Your task to perform on an android device: manage bookmarks in the chrome app Image 0: 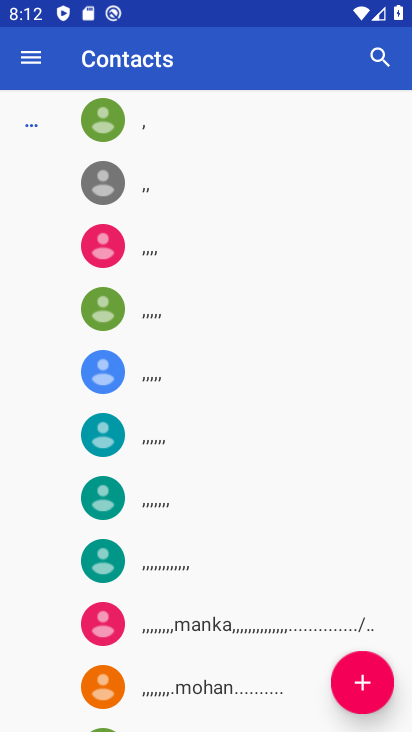
Step 0: press home button
Your task to perform on an android device: manage bookmarks in the chrome app Image 1: 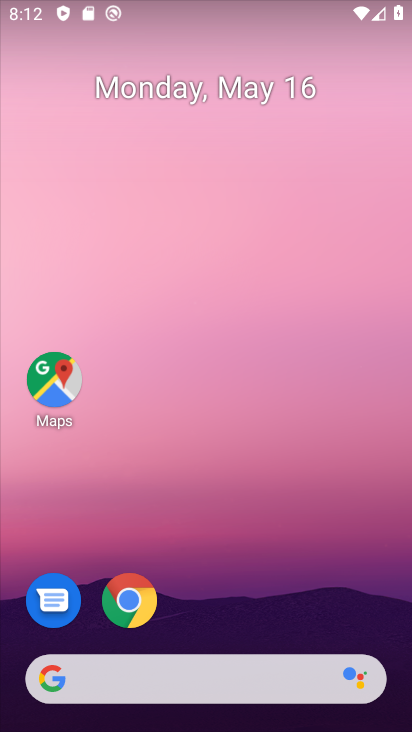
Step 1: click (124, 612)
Your task to perform on an android device: manage bookmarks in the chrome app Image 2: 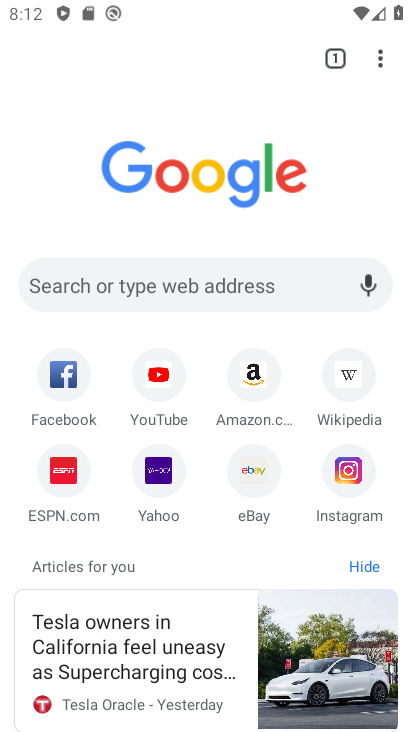
Step 2: drag from (379, 60) to (247, 231)
Your task to perform on an android device: manage bookmarks in the chrome app Image 3: 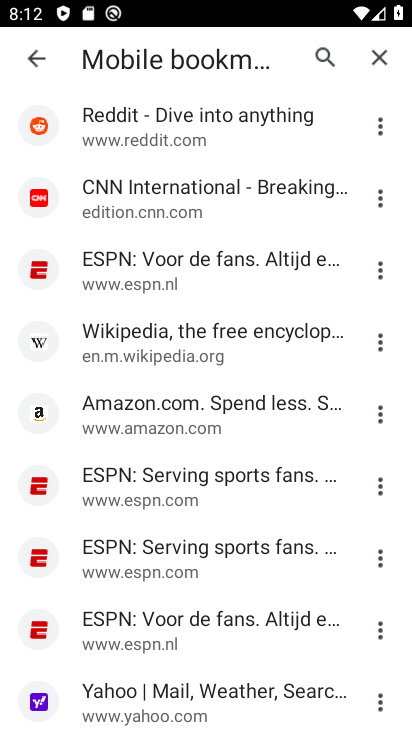
Step 3: click (195, 119)
Your task to perform on an android device: manage bookmarks in the chrome app Image 4: 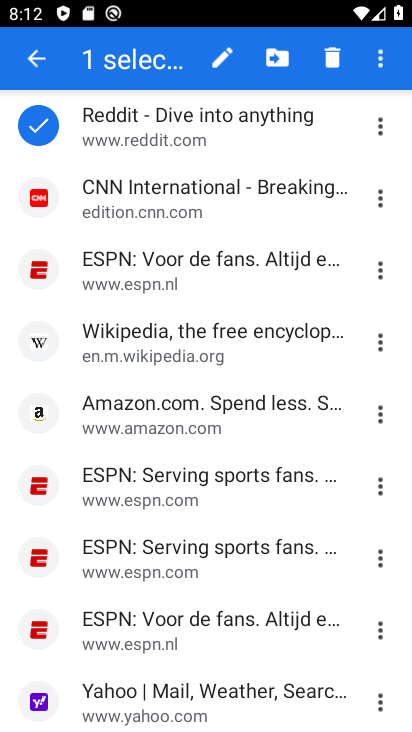
Step 4: click (179, 224)
Your task to perform on an android device: manage bookmarks in the chrome app Image 5: 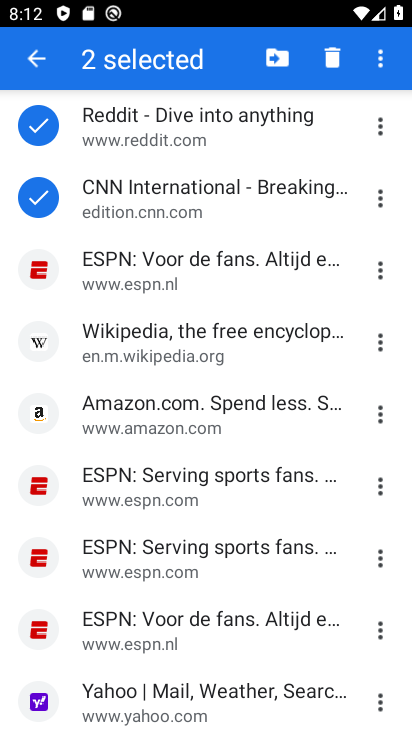
Step 5: click (163, 287)
Your task to perform on an android device: manage bookmarks in the chrome app Image 6: 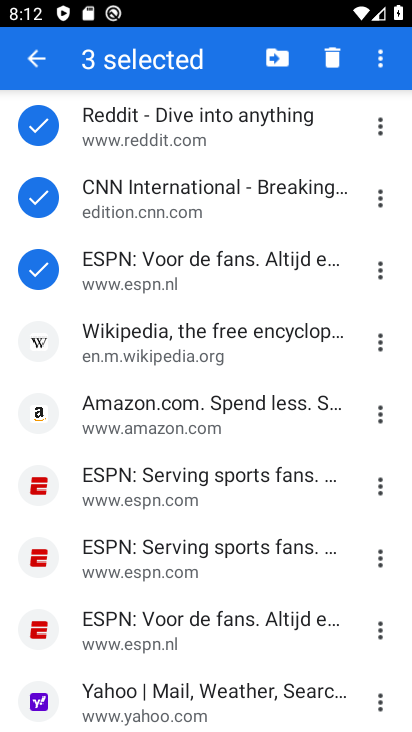
Step 6: click (158, 343)
Your task to perform on an android device: manage bookmarks in the chrome app Image 7: 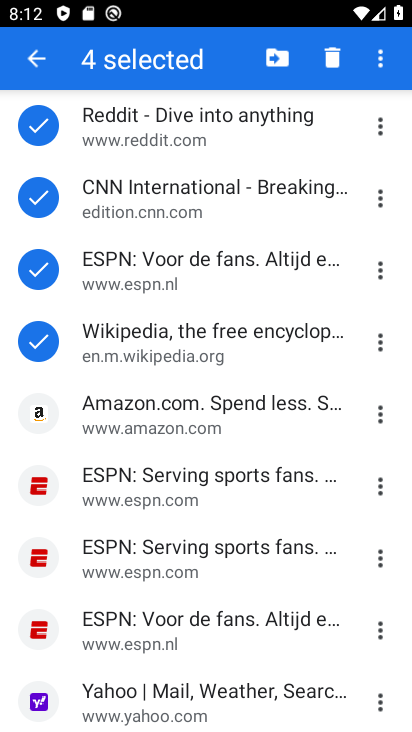
Step 7: click (156, 421)
Your task to perform on an android device: manage bookmarks in the chrome app Image 8: 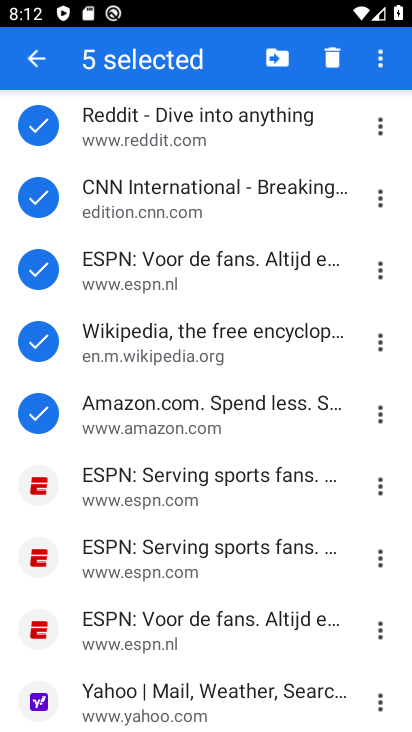
Step 8: click (147, 497)
Your task to perform on an android device: manage bookmarks in the chrome app Image 9: 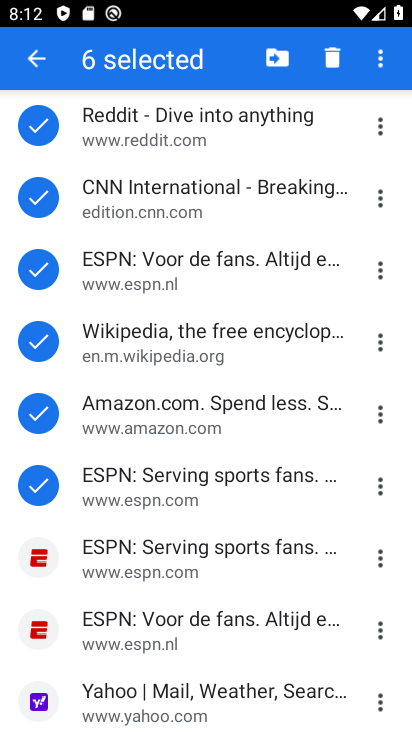
Step 9: click (147, 561)
Your task to perform on an android device: manage bookmarks in the chrome app Image 10: 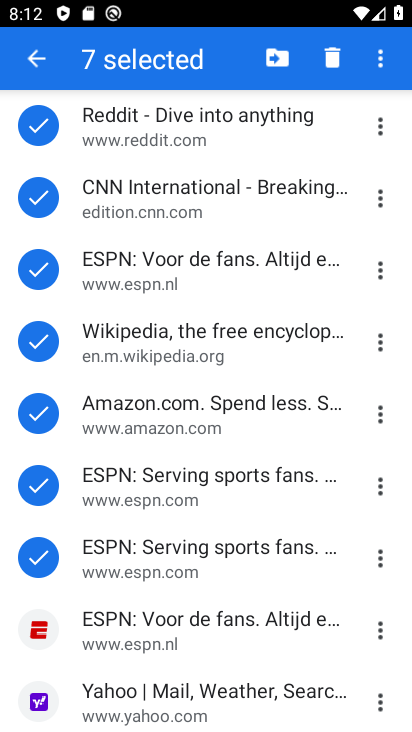
Step 10: click (148, 619)
Your task to perform on an android device: manage bookmarks in the chrome app Image 11: 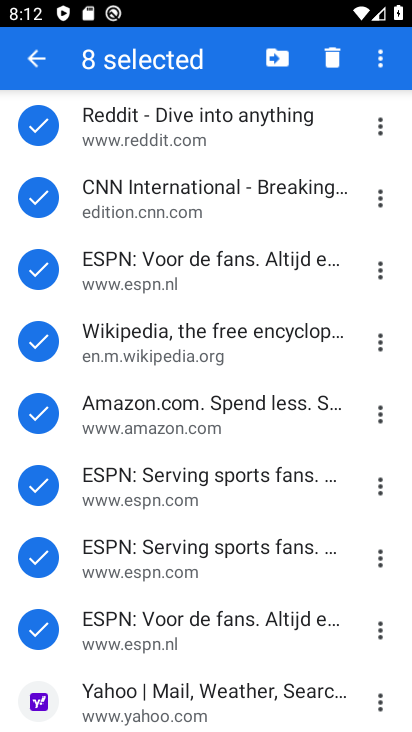
Step 11: click (130, 689)
Your task to perform on an android device: manage bookmarks in the chrome app Image 12: 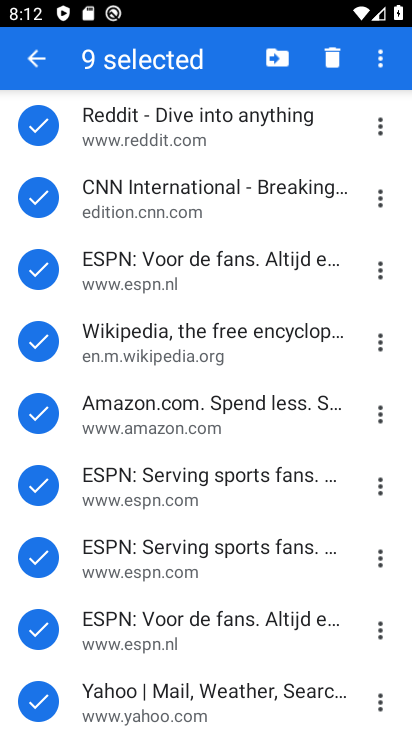
Step 12: drag from (145, 669) to (231, 89)
Your task to perform on an android device: manage bookmarks in the chrome app Image 13: 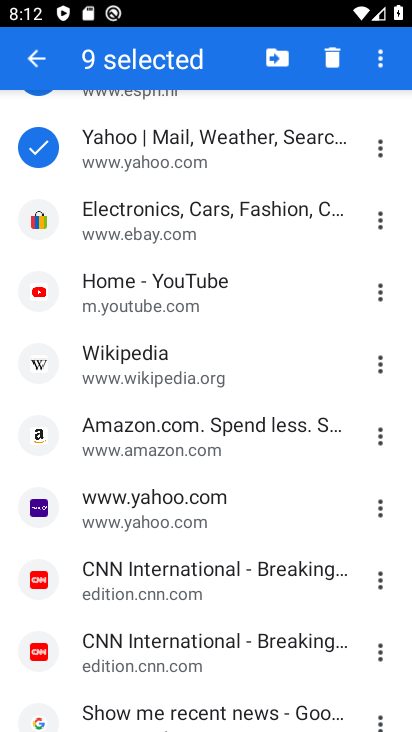
Step 13: click (158, 296)
Your task to perform on an android device: manage bookmarks in the chrome app Image 14: 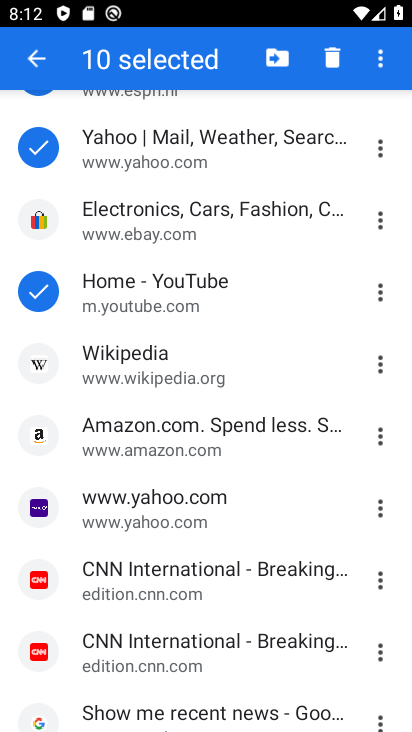
Step 14: click (165, 356)
Your task to perform on an android device: manage bookmarks in the chrome app Image 15: 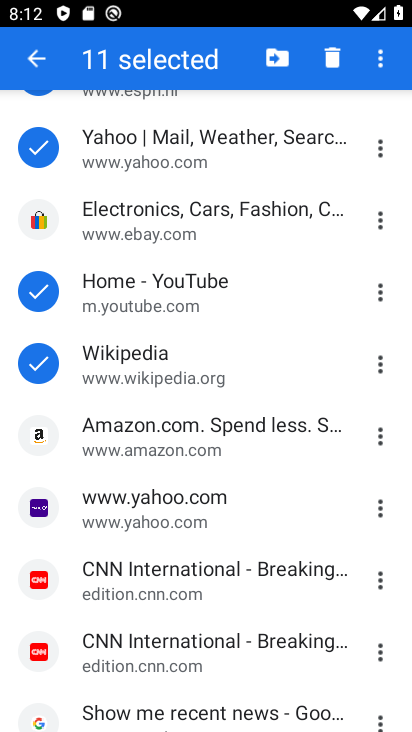
Step 15: click (199, 440)
Your task to perform on an android device: manage bookmarks in the chrome app Image 16: 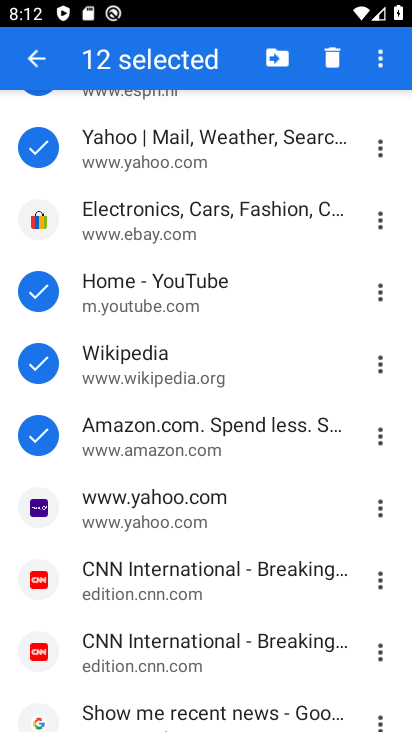
Step 16: click (194, 514)
Your task to perform on an android device: manage bookmarks in the chrome app Image 17: 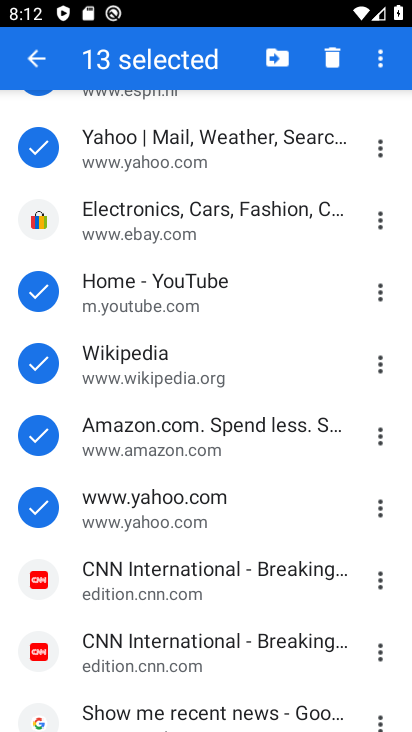
Step 17: click (189, 601)
Your task to perform on an android device: manage bookmarks in the chrome app Image 18: 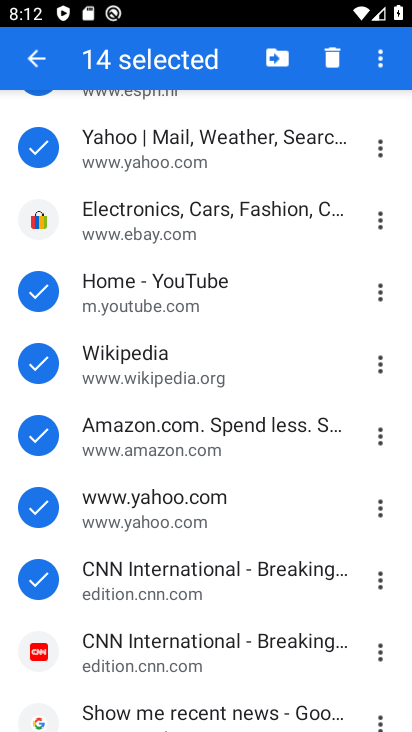
Step 18: click (174, 660)
Your task to perform on an android device: manage bookmarks in the chrome app Image 19: 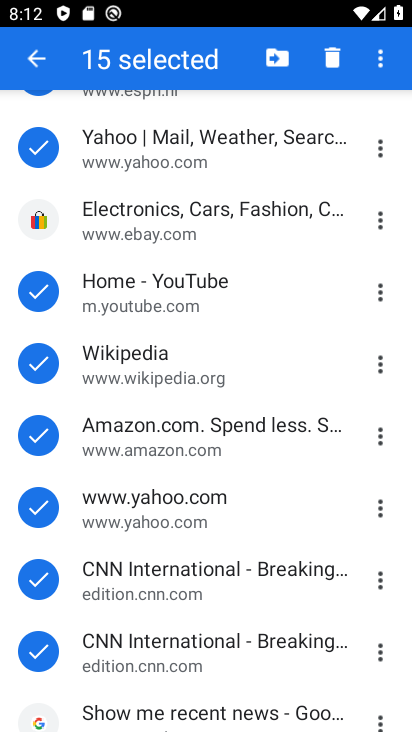
Step 19: click (159, 216)
Your task to perform on an android device: manage bookmarks in the chrome app Image 20: 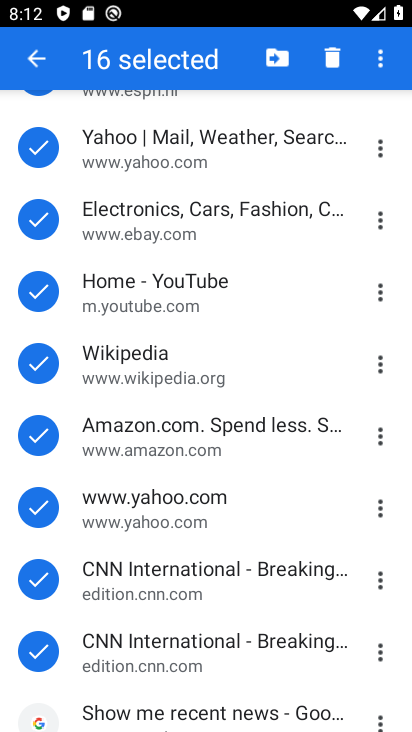
Step 20: drag from (199, 670) to (295, 218)
Your task to perform on an android device: manage bookmarks in the chrome app Image 21: 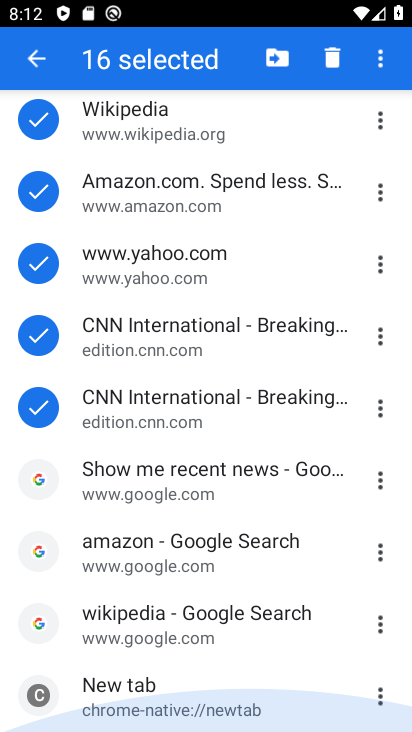
Step 21: click (172, 472)
Your task to perform on an android device: manage bookmarks in the chrome app Image 22: 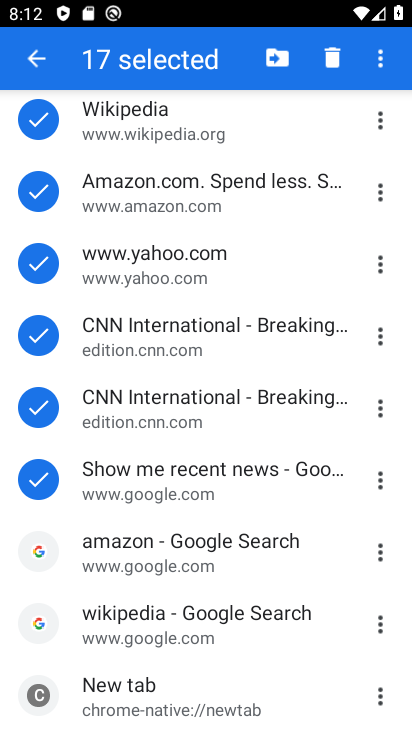
Step 22: click (144, 540)
Your task to perform on an android device: manage bookmarks in the chrome app Image 23: 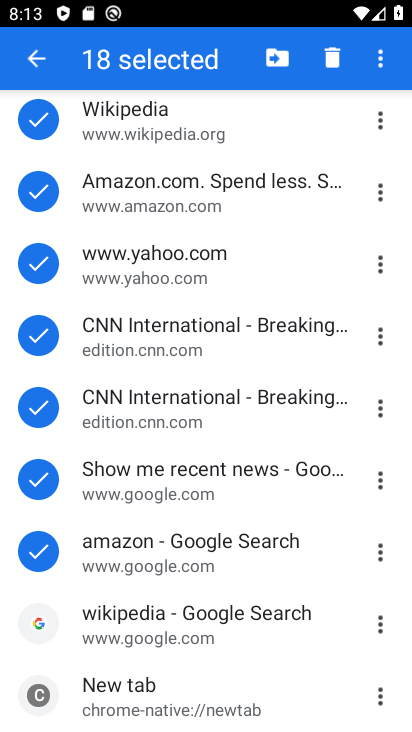
Step 23: click (129, 625)
Your task to perform on an android device: manage bookmarks in the chrome app Image 24: 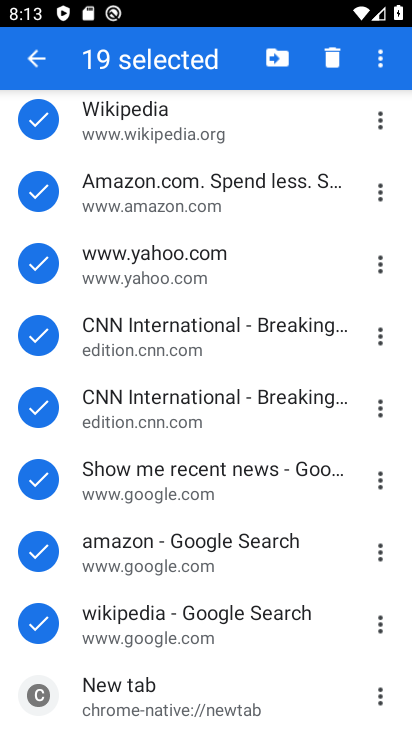
Step 24: click (128, 706)
Your task to perform on an android device: manage bookmarks in the chrome app Image 25: 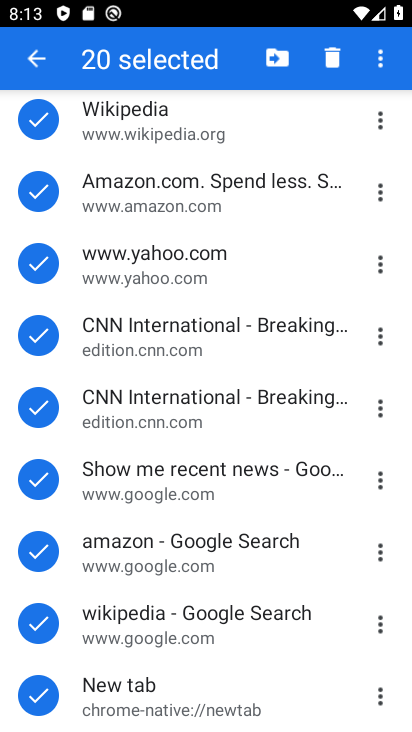
Step 25: drag from (132, 693) to (252, 224)
Your task to perform on an android device: manage bookmarks in the chrome app Image 26: 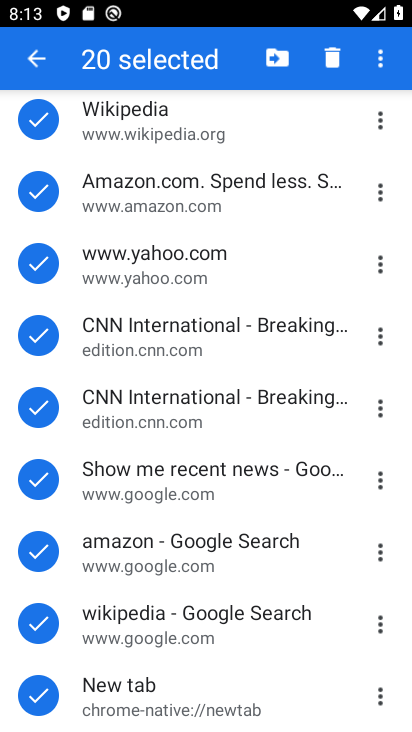
Step 26: click (266, 57)
Your task to perform on an android device: manage bookmarks in the chrome app Image 27: 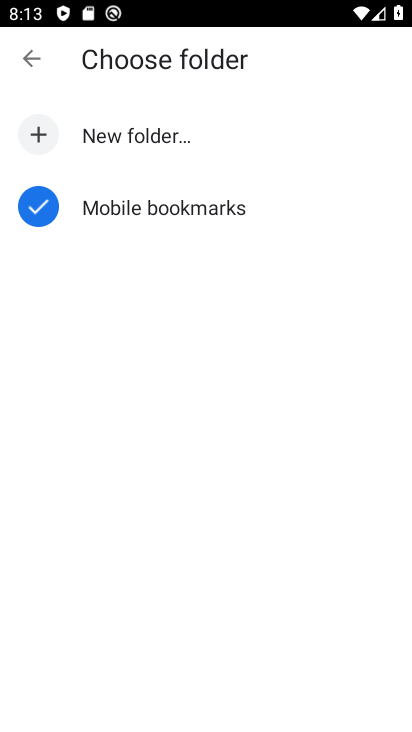
Step 27: click (213, 146)
Your task to perform on an android device: manage bookmarks in the chrome app Image 28: 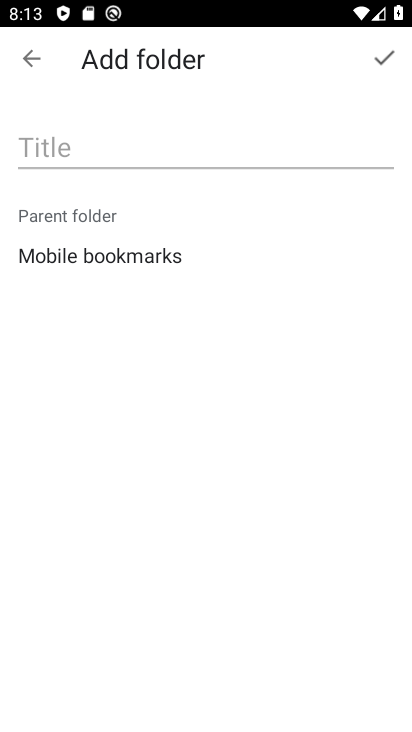
Step 28: click (161, 125)
Your task to perform on an android device: manage bookmarks in the chrome app Image 29: 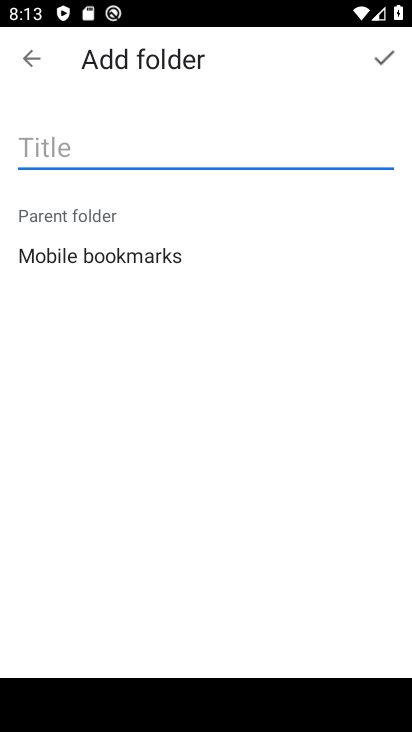
Step 29: type "nmnmnmn"
Your task to perform on an android device: manage bookmarks in the chrome app Image 30: 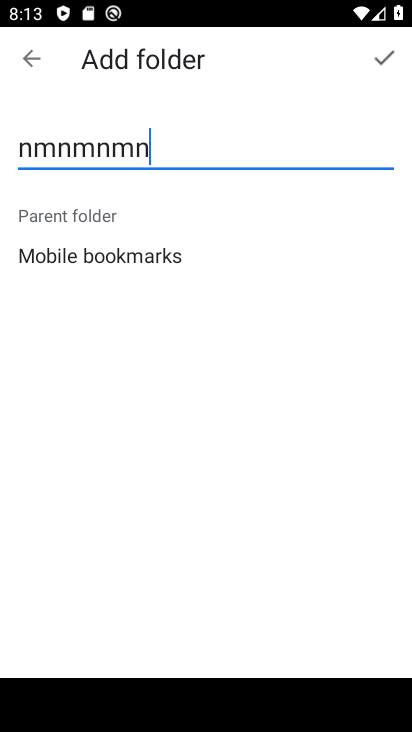
Step 30: click (393, 49)
Your task to perform on an android device: manage bookmarks in the chrome app Image 31: 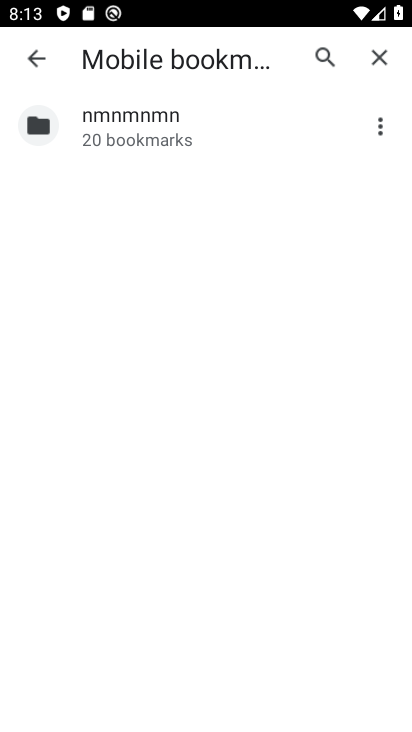
Step 31: task complete